Your task to perform on an android device: change timer sound Image 0: 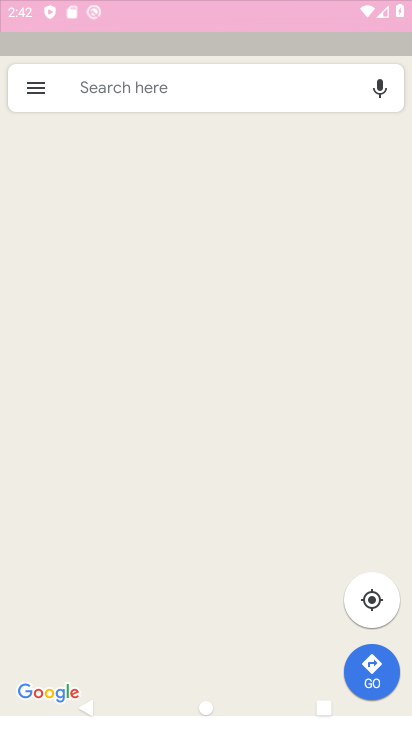
Step 0: click (269, 71)
Your task to perform on an android device: change timer sound Image 1: 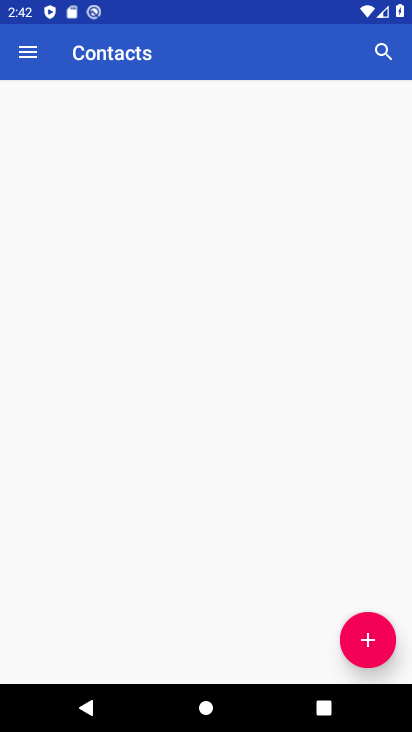
Step 1: drag from (221, 561) to (231, 159)
Your task to perform on an android device: change timer sound Image 2: 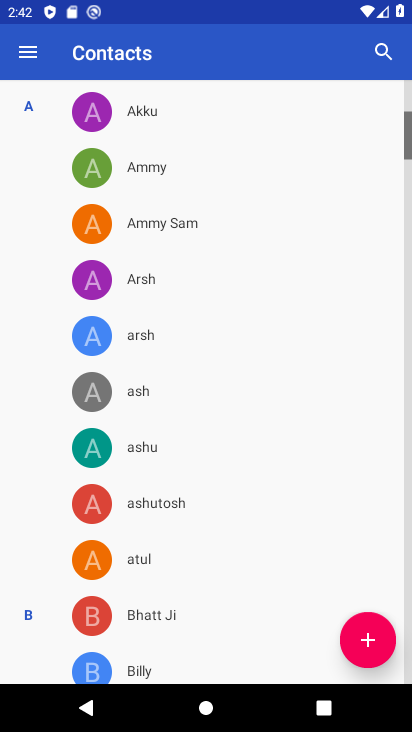
Step 2: press back button
Your task to perform on an android device: change timer sound Image 3: 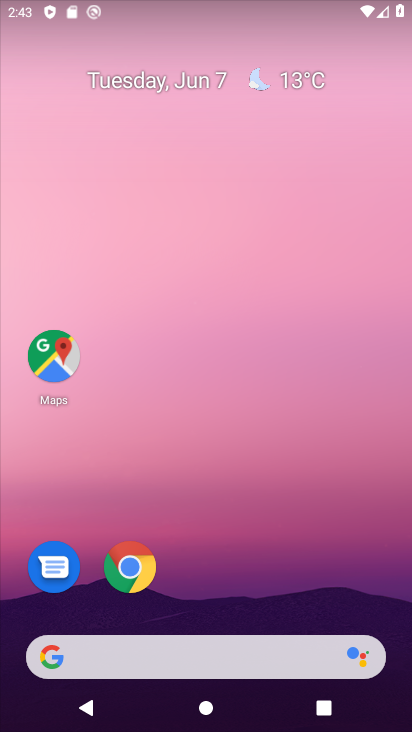
Step 3: drag from (227, 565) to (265, 55)
Your task to perform on an android device: change timer sound Image 4: 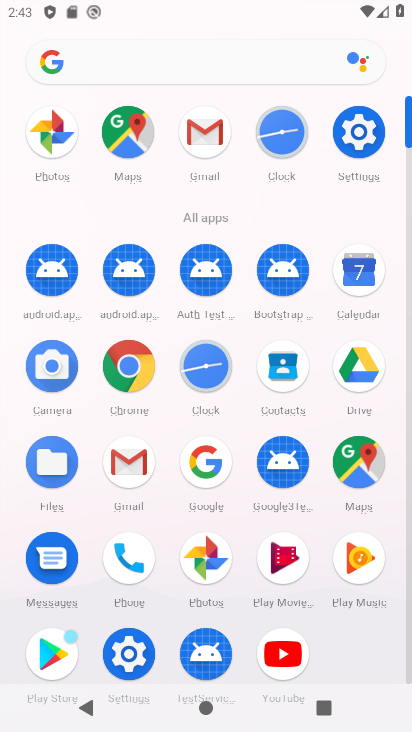
Step 4: click (360, 123)
Your task to perform on an android device: change timer sound Image 5: 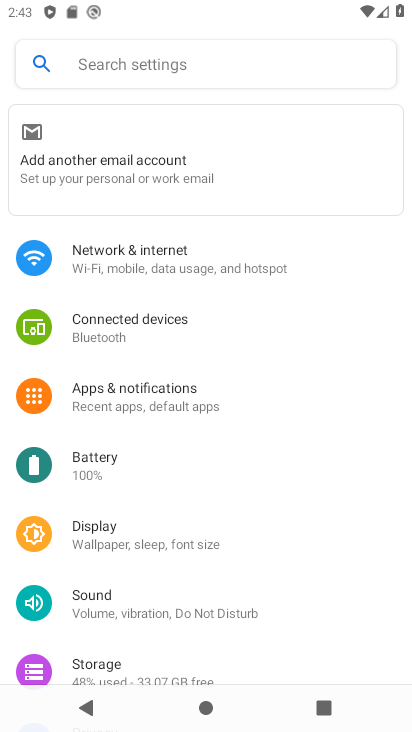
Step 5: press back button
Your task to perform on an android device: change timer sound Image 6: 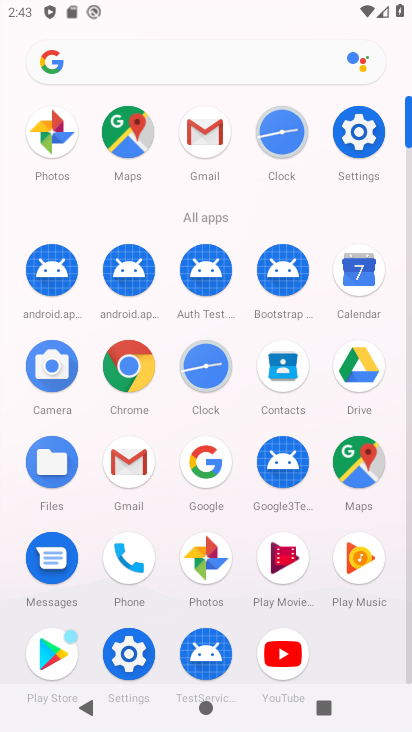
Step 6: click (195, 359)
Your task to perform on an android device: change timer sound Image 7: 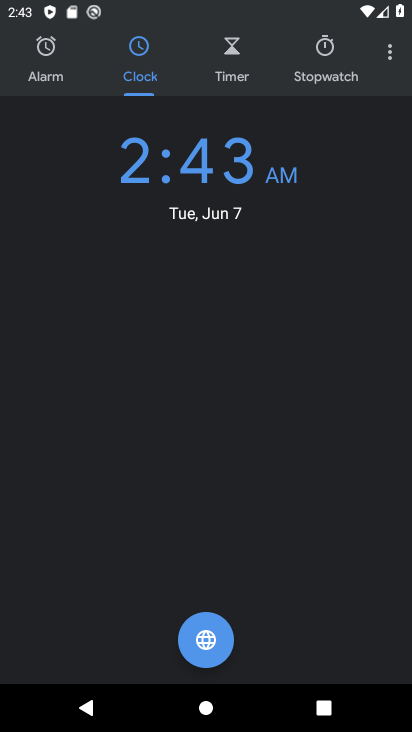
Step 7: click (381, 55)
Your task to perform on an android device: change timer sound Image 8: 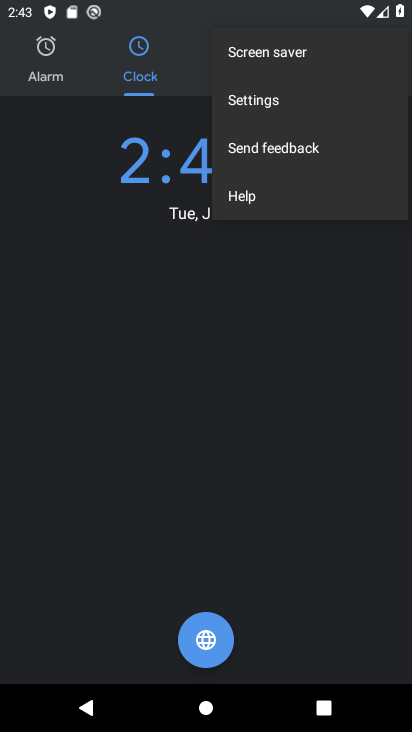
Step 8: click (269, 97)
Your task to perform on an android device: change timer sound Image 9: 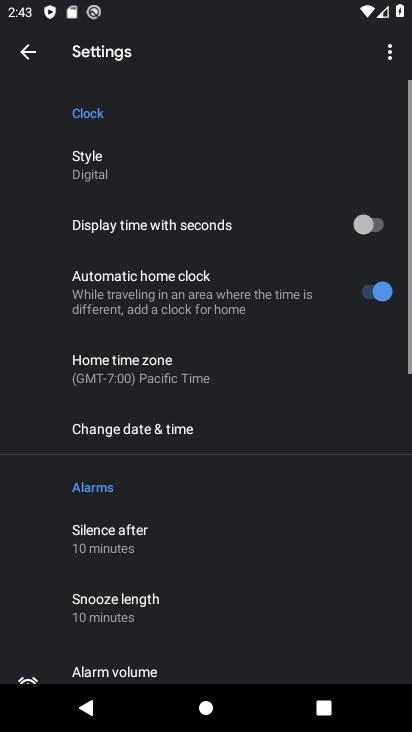
Step 9: drag from (196, 538) to (263, 100)
Your task to perform on an android device: change timer sound Image 10: 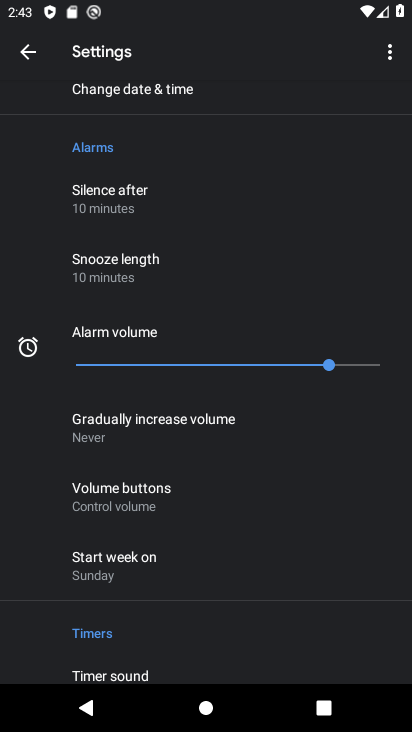
Step 10: drag from (202, 530) to (246, 132)
Your task to perform on an android device: change timer sound Image 11: 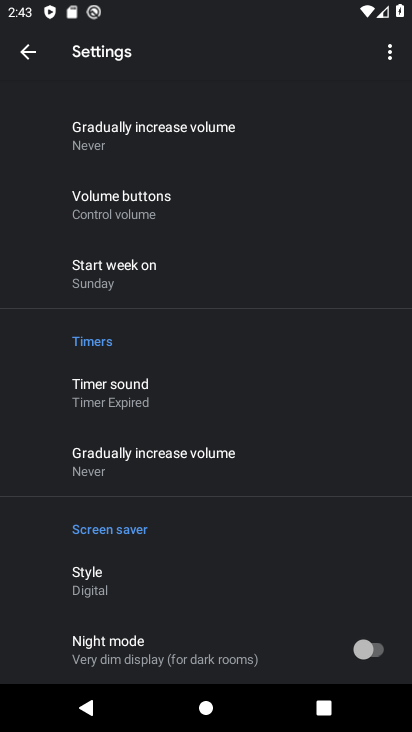
Step 11: click (102, 376)
Your task to perform on an android device: change timer sound Image 12: 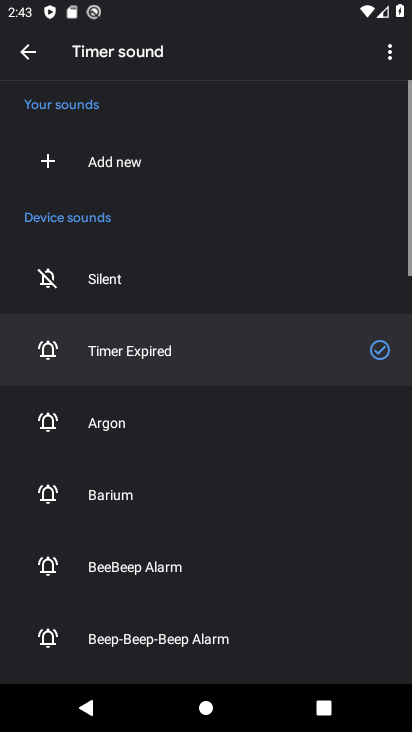
Step 12: click (122, 422)
Your task to perform on an android device: change timer sound Image 13: 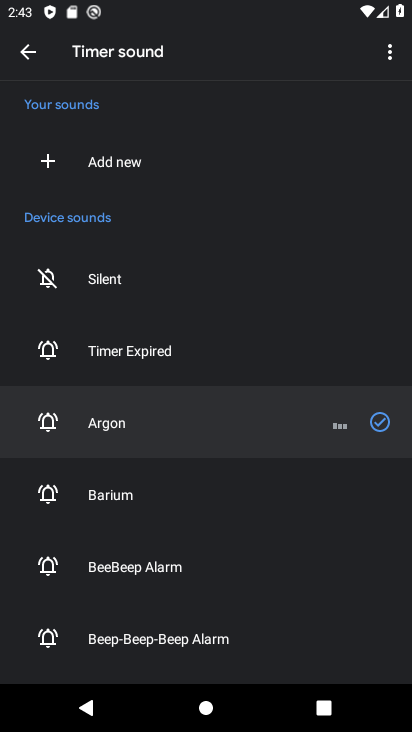
Step 13: task complete